Your task to perform on an android device: Go to Google Image 0: 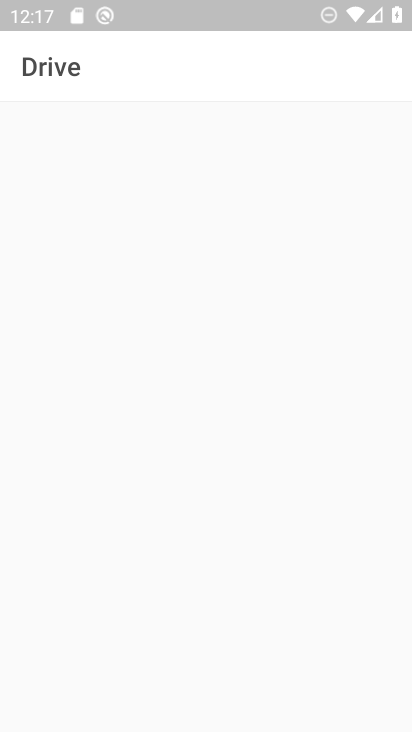
Step 0: press home button
Your task to perform on an android device: Go to Google Image 1: 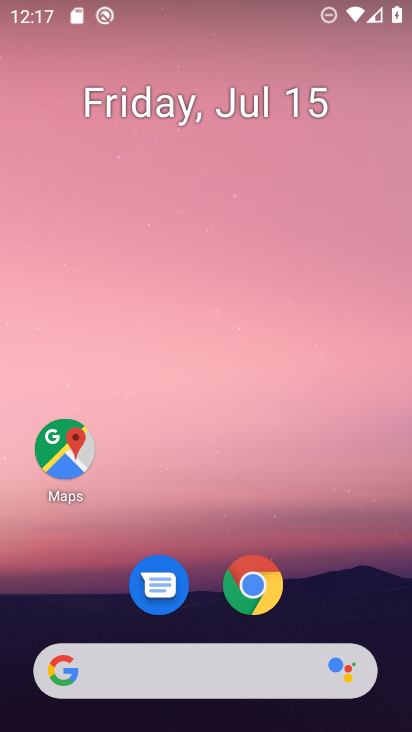
Step 1: click (163, 683)
Your task to perform on an android device: Go to Google Image 2: 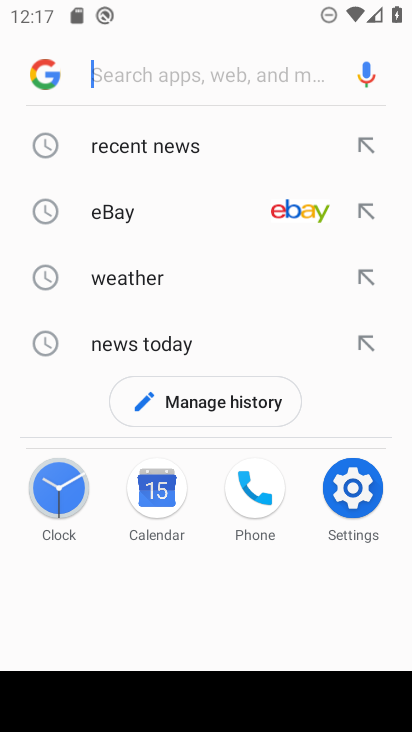
Step 2: click (49, 73)
Your task to perform on an android device: Go to Google Image 3: 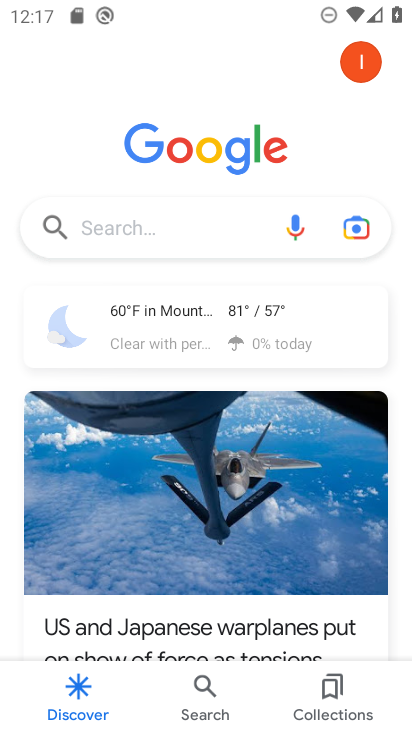
Step 3: task complete